Your task to perform on an android device: toggle wifi Image 0: 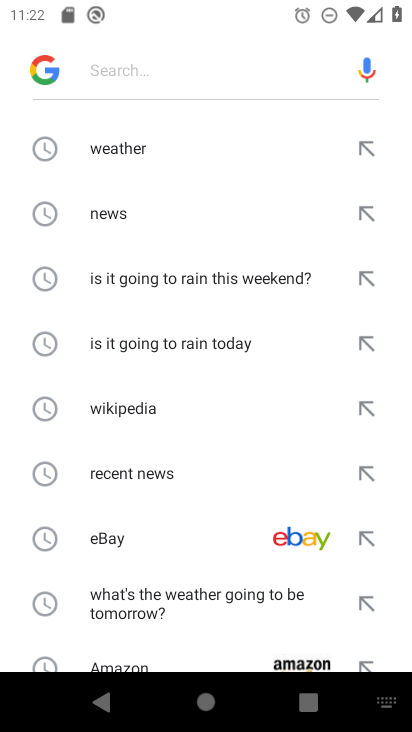
Step 0: press home button
Your task to perform on an android device: toggle wifi Image 1: 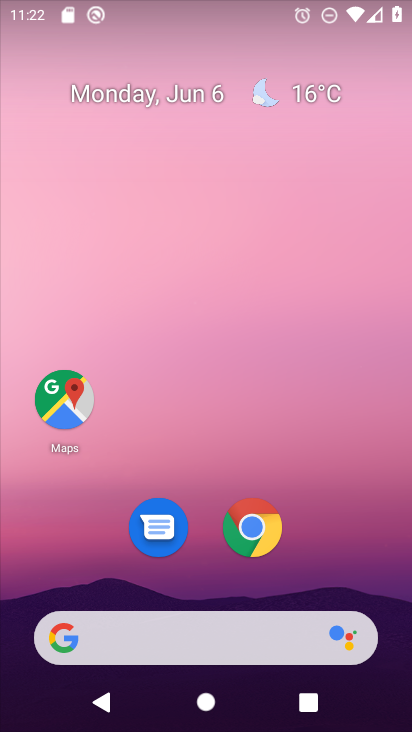
Step 1: drag from (353, 572) to (346, 123)
Your task to perform on an android device: toggle wifi Image 2: 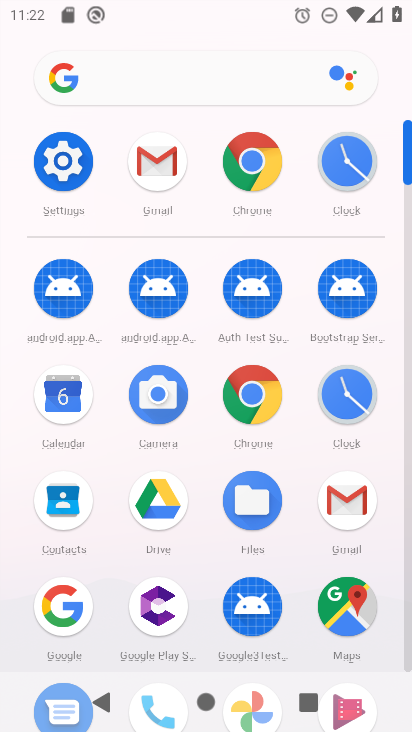
Step 2: click (48, 159)
Your task to perform on an android device: toggle wifi Image 3: 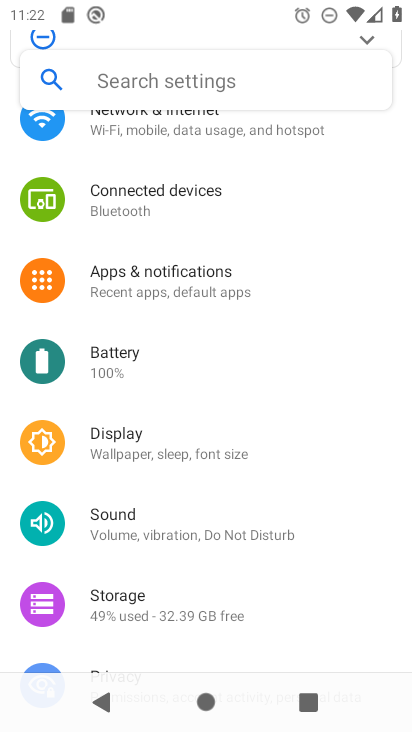
Step 3: drag from (339, 237) to (345, 405)
Your task to perform on an android device: toggle wifi Image 4: 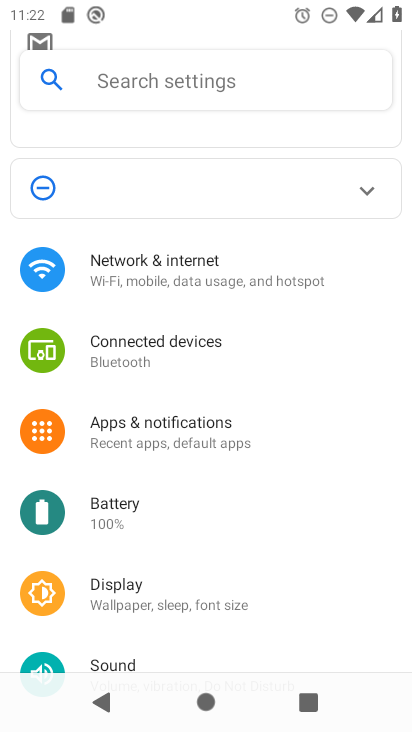
Step 4: click (292, 273)
Your task to perform on an android device: toggle wifi Image 5: 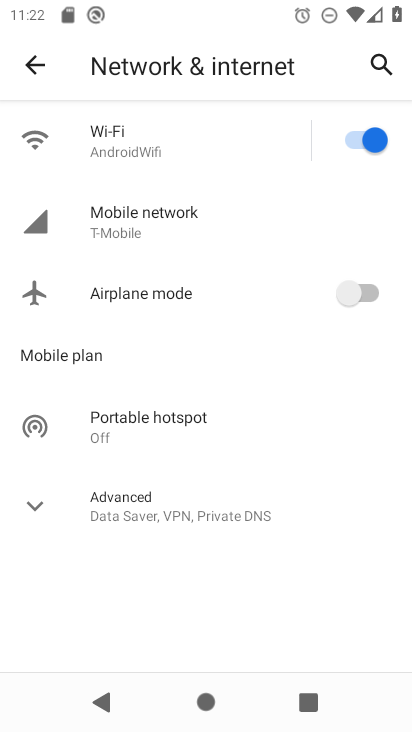
Step 5: click (372, 134)
Your task to perform on an android device: toggle wifi Image 6: 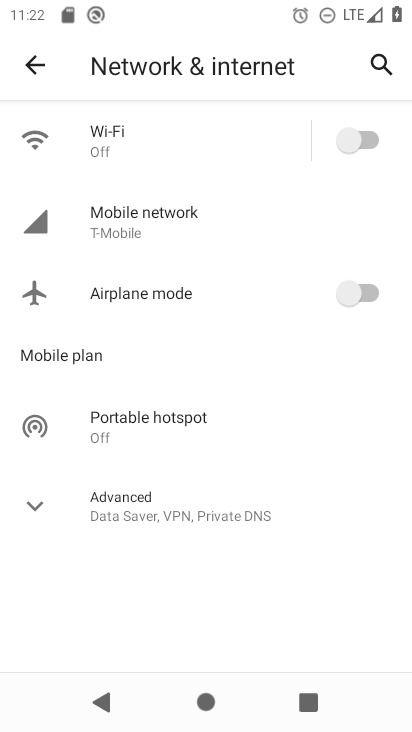
Step 6: task complete